Your task to perform on an android device: What's the weather going to be this weekend? Image 0: 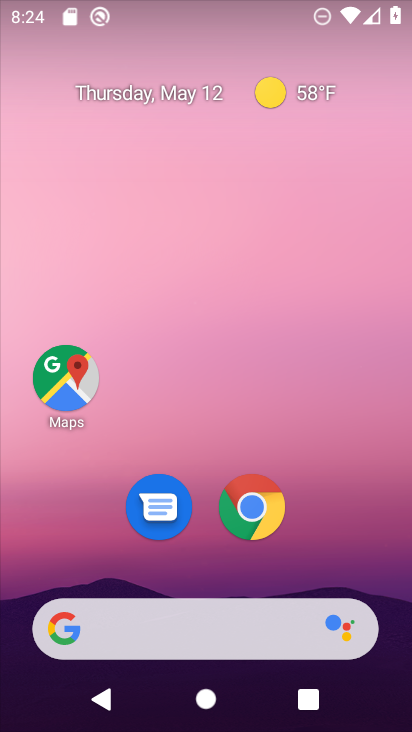
Step 0: drag from (202, 572) to (226, 166)
Your task to perform on an android device: What's the weather going to be this weekend? Image 1: 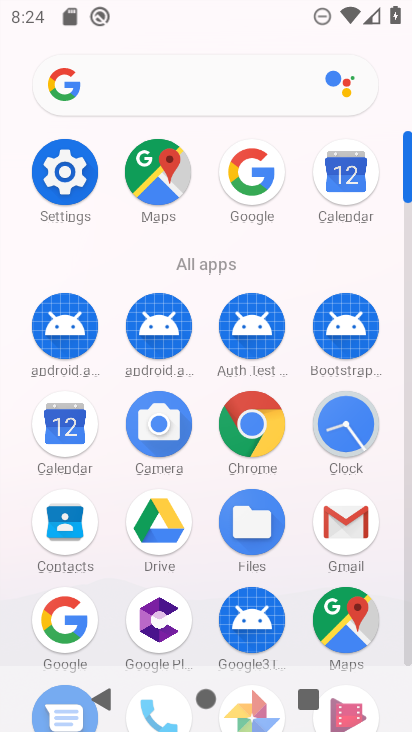
Step 1: click (65, 596)
Your task to perform on an android device: What's the weather going to be this weekend? Image 2: 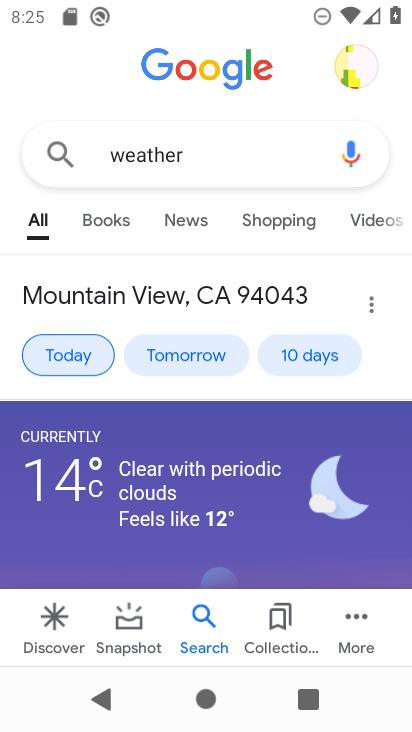
Step 2: click (296, 351)
Your task to perform on an android device: What's the weather going to be this weekend? Image 3: 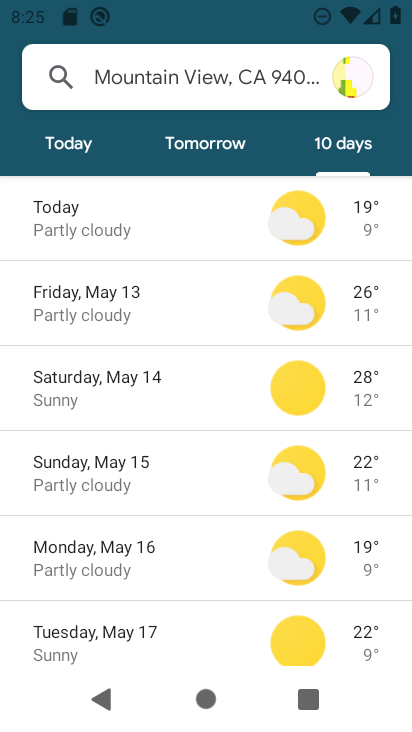
Step 3: task complete